Your task to perform on an android device: turn on translation in the chrome app Image 0: 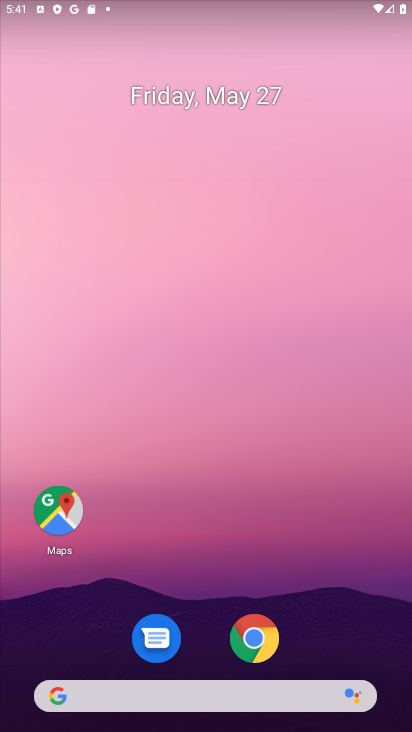
Step 0: click (246, 642)
Your task to perform on an android device: turn on translation in the chrome app Image 1: 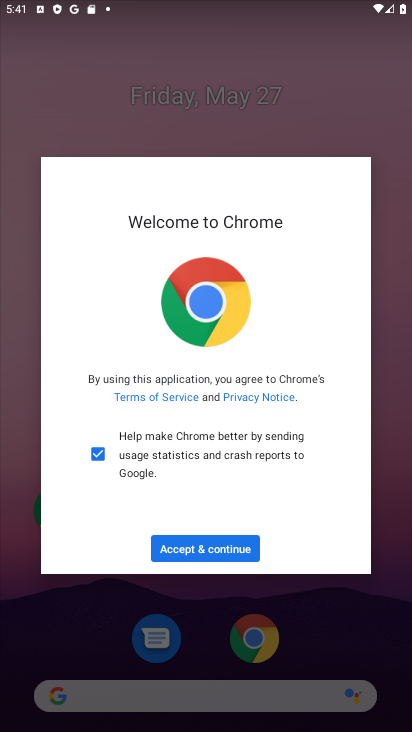
Step 1: click (211, 542)
Your task to perform on an android device: turn on translation in the chrome app Image 2: 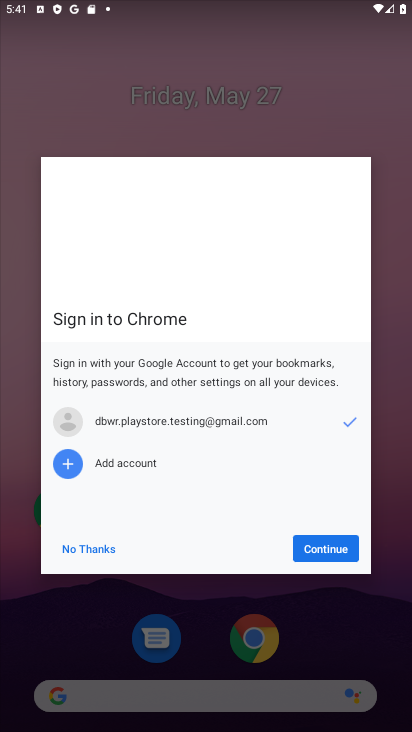
Step 2: click (286, 547)
Your task to perform on an android device: turn on translation in the chrome app Image 3: 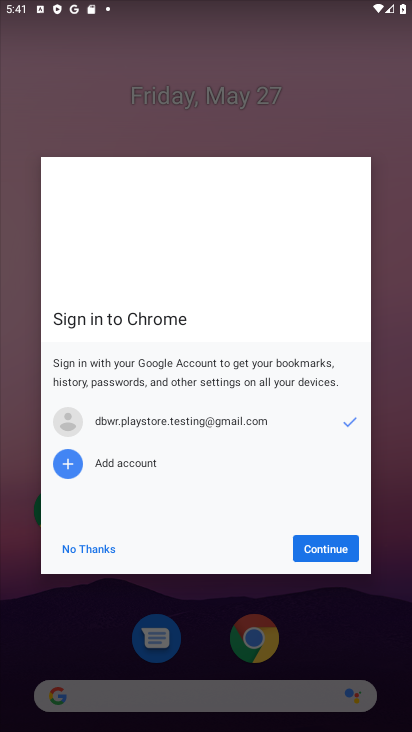
Step 3: click (303, 545)
Your task to perform on an android device: turn on translation in the chrome app Image 4: 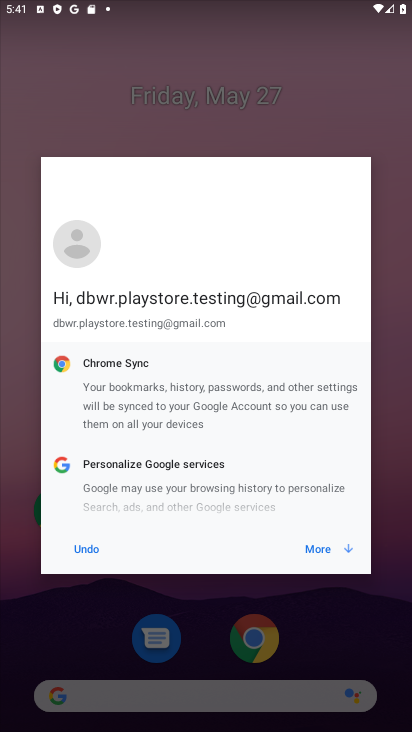
Step 4: click (303, 545)
Your task to perform on an android device: turn on translation in the chrome app Image 5: 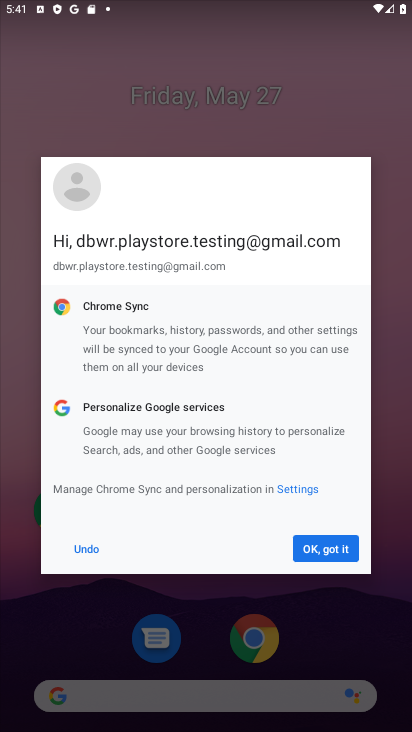
Step 5: click (303, 545)
Your task to perform on an android device: turn on translation in the chrome app Image 6: 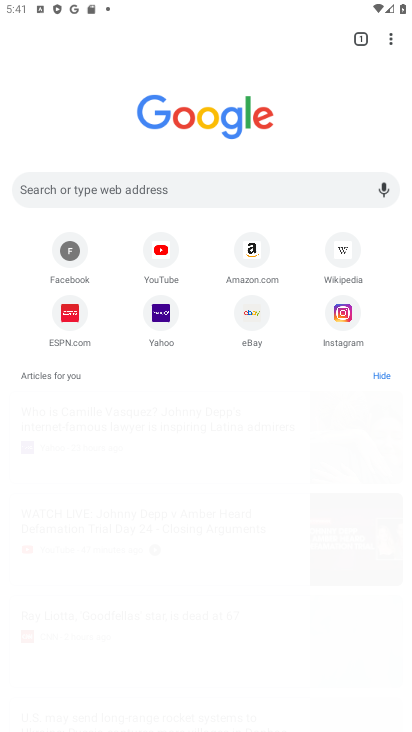
Step 6: click (391, 44)
Your task to perform on an android device: turn on translation in the chrome app Image 7: 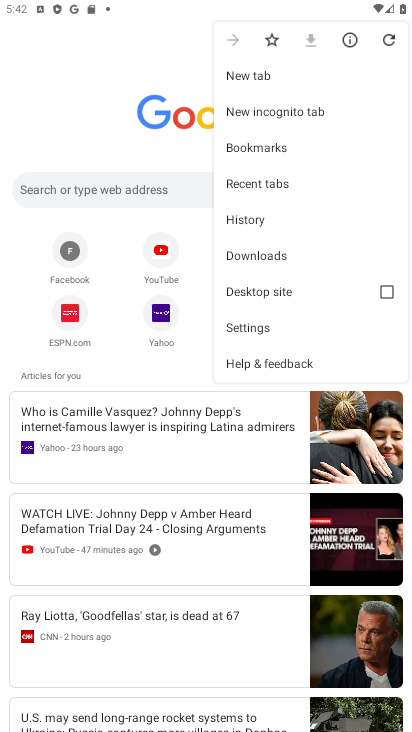
Step 7: click (252, 330)
Your task to perform on an android device: turn on translation in the chrome app Image 8: 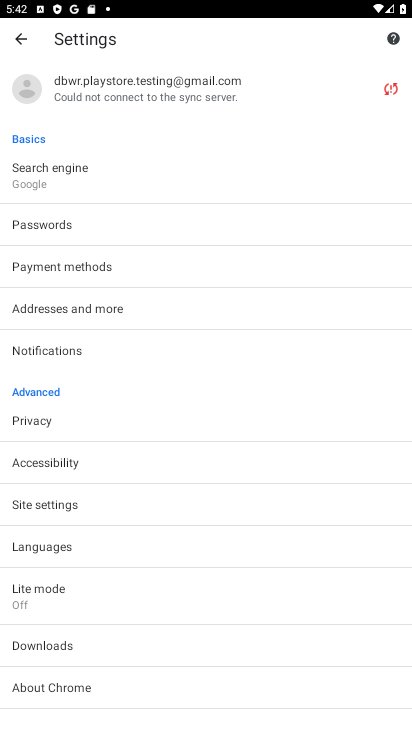
Step 8: click (84, 545)
Your task to perform on an android device: turn on translation in the chrome app Image 9: 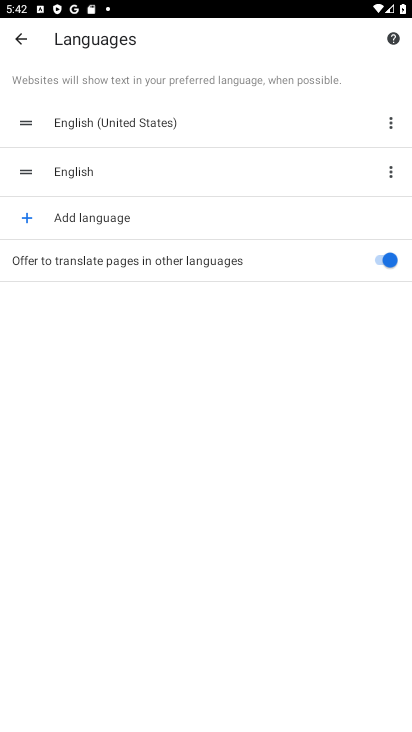
Step 9: task complete